Your task to perform on an android device: Open Maps and search for coffee Image 0: 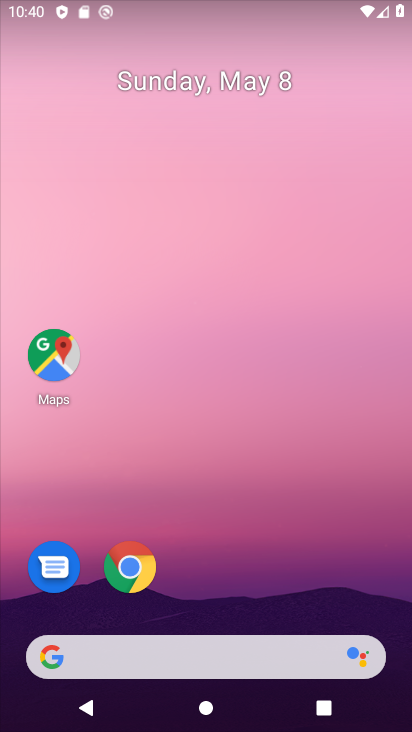
Step 0: drag from (218, 619) to (239, 85)
Your task to perform on an android device: Open Maps and search for coffee Image 1: 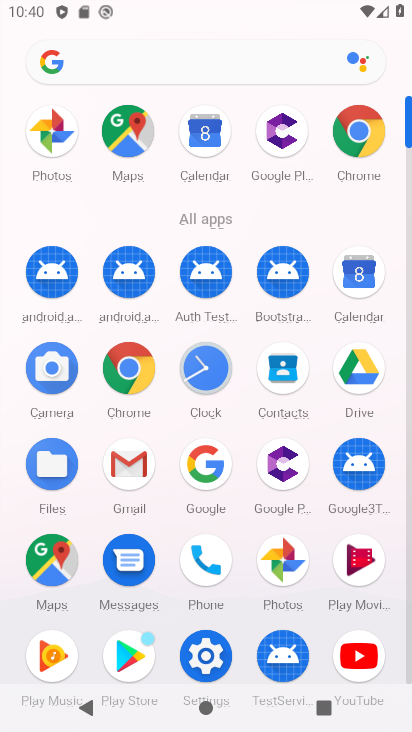
Step 1: click (53, 545)
Your task to perform on an android device: Open Maps and search for coffee Image 2: 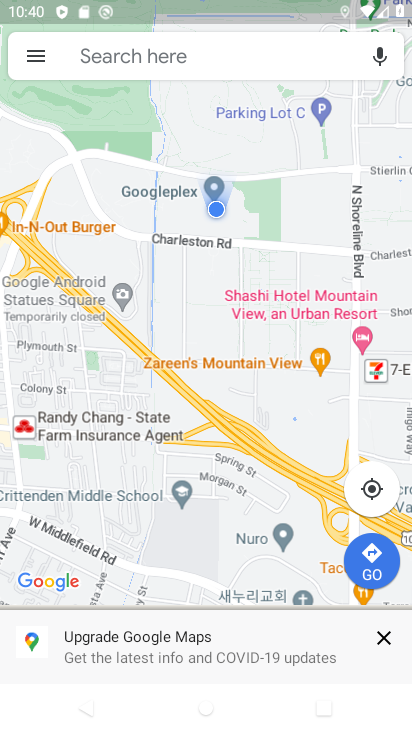
Step 2: click (114, 54)
Your task to perform on an android device: Open Maps and search for coffee Image 3: 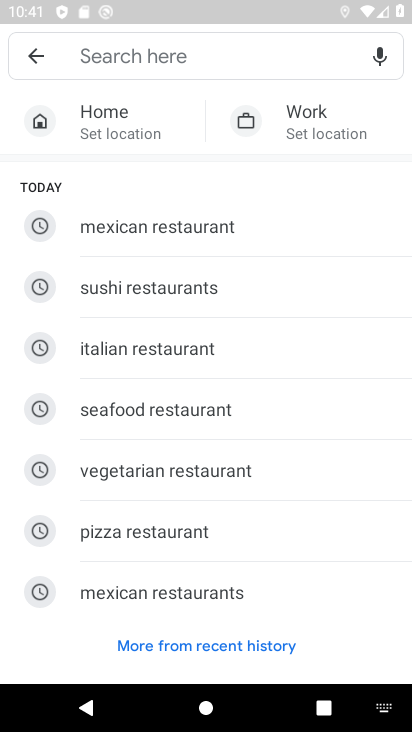
Step 3: type "coffee"
Your task to perform on an android device: Open Maps and search for coffee Image 4: 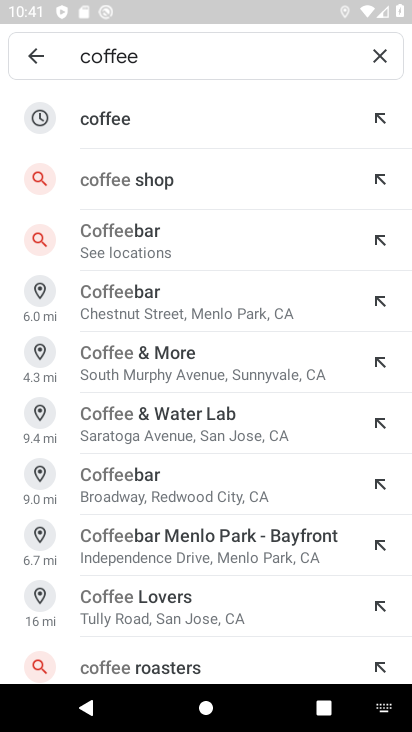
Step 4: click (141, 114)
Your task to perform on an android device: Open Maps and search for coffee Image 5: 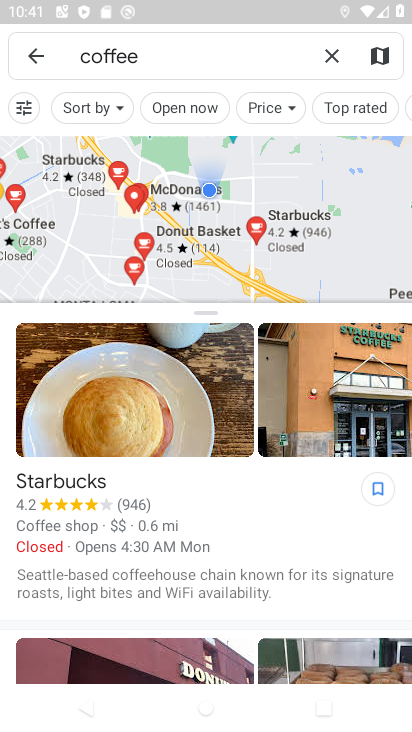
Step 5: task complete